Your task to perform on an android device: Open settings Image 0: 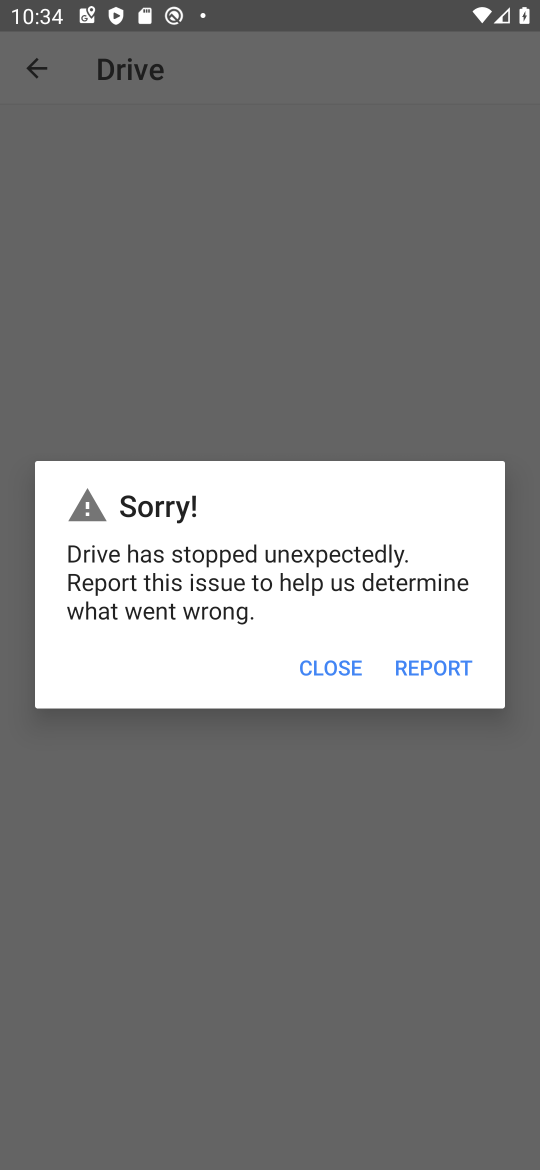
Step 0: press home button
Your task to perform on an android device: Open settings Image 1: 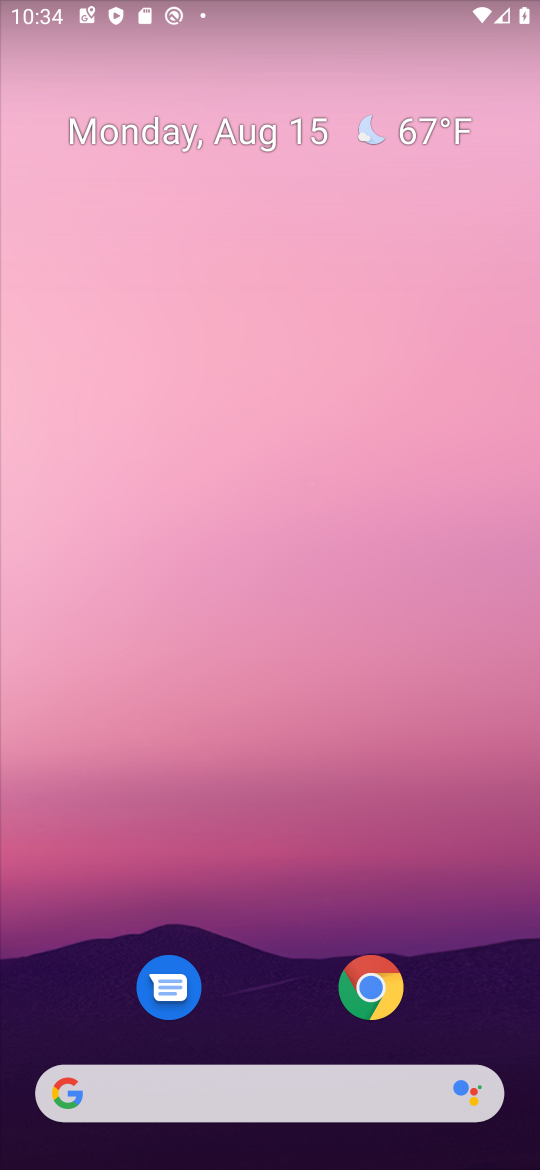
Step 1: drag from (305, 1045) to (183, 170)
Your task to perform on an android device: Open settings Image 2: 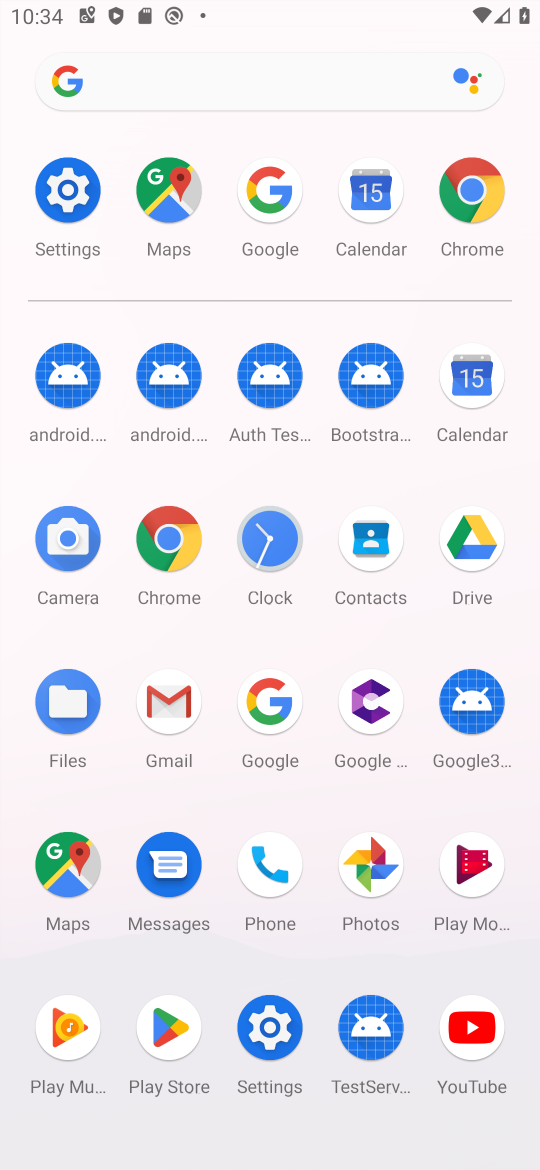
Step 2: click (268, 1034)
Your task to perform on an android device: Open settings Image 3: 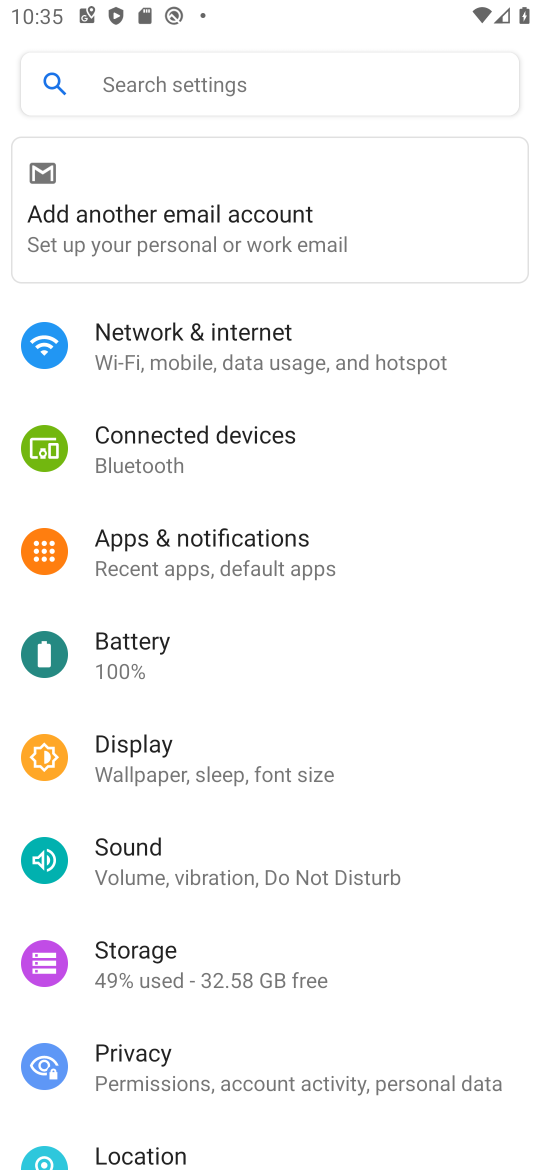
Step 3: task complete